Your task to perform on an android device: change the clock display to digital Image 0: 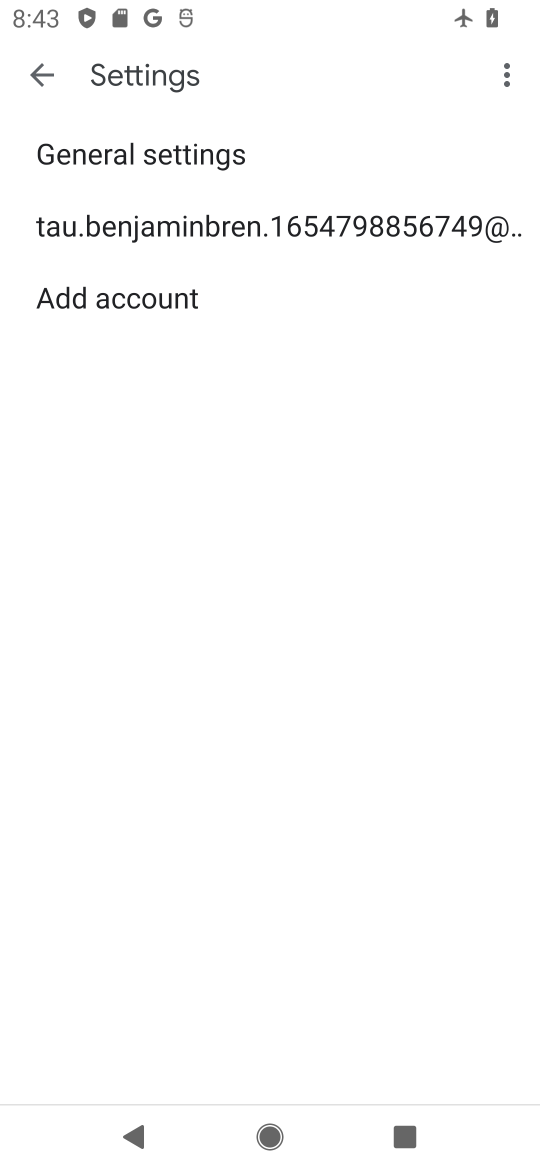
Step 0: press home button
Your task to perform on an android device: change the clock display to digital Image 1: 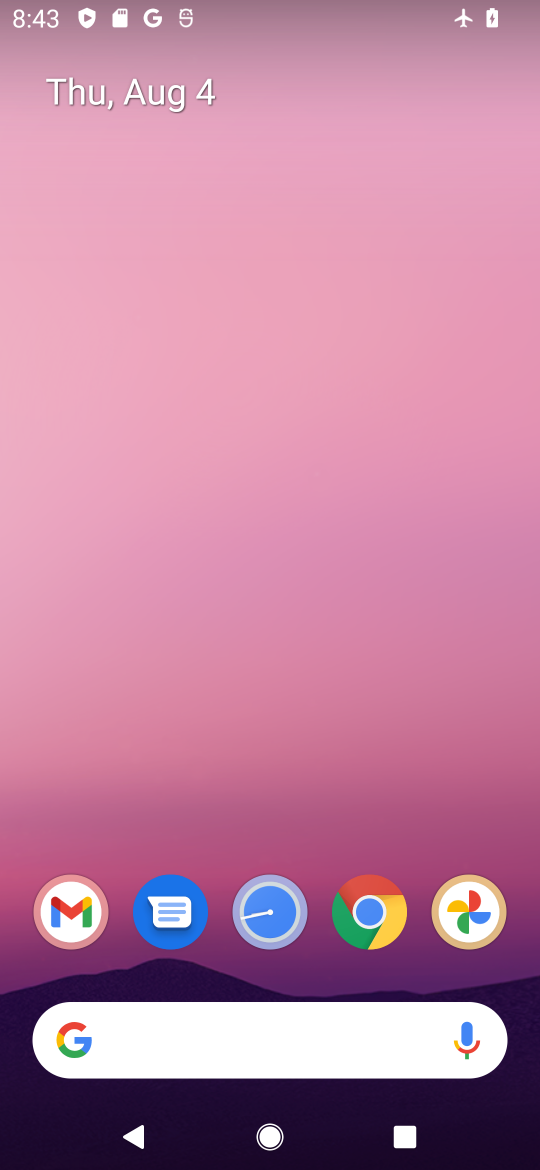
Step 1: click (261, 930)
Your task to perform on an android device: change the clock display to digital Image 2: 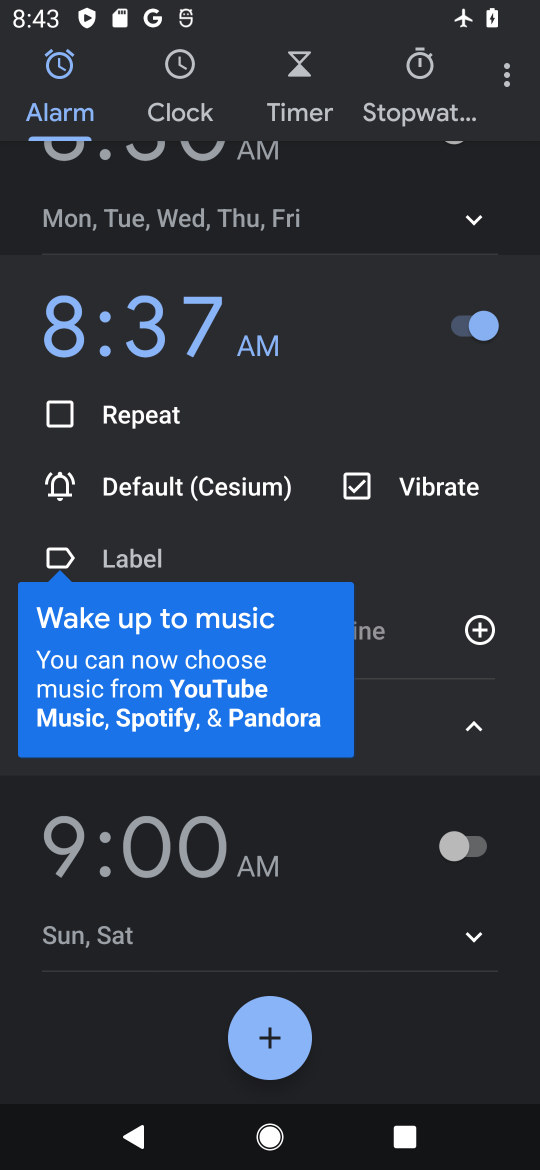
Step 2: click (496, 85)
Your task to perform on an android device: change the clock display to digital Image 3: 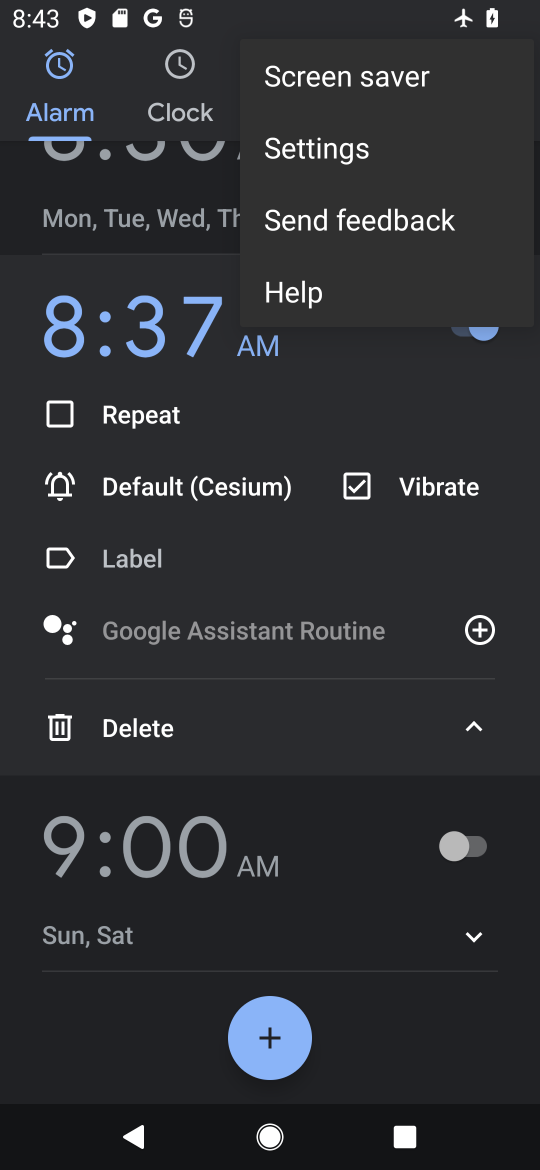
Step 3: click (364, 146)
Your task to perform on an android device: change the clock display to digital Image 4: 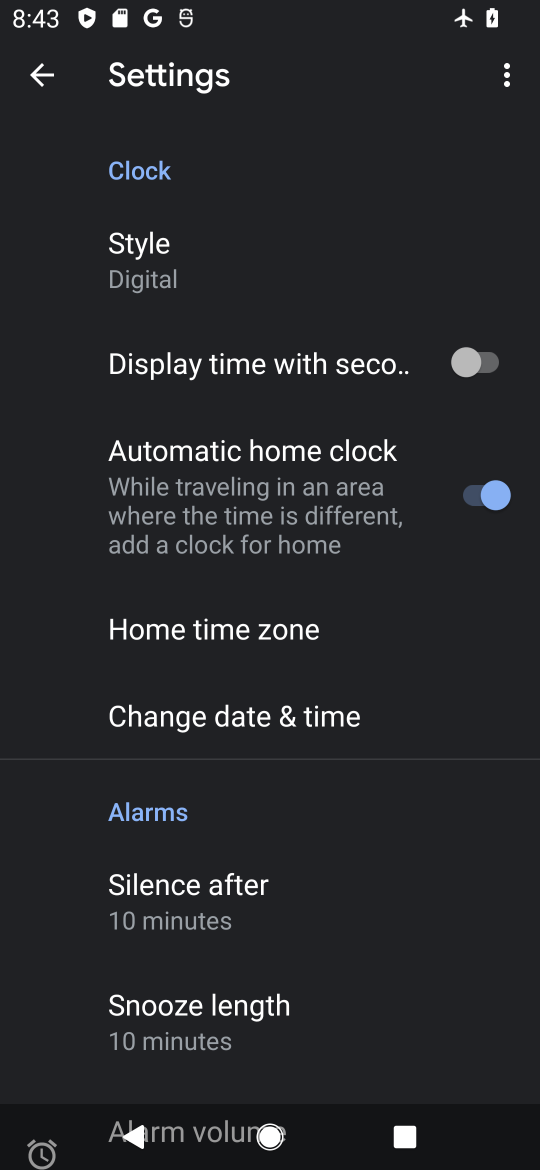
Step 4: click (338, 277)
Your task to perform on an android device: change the clock display to digital Image 5: 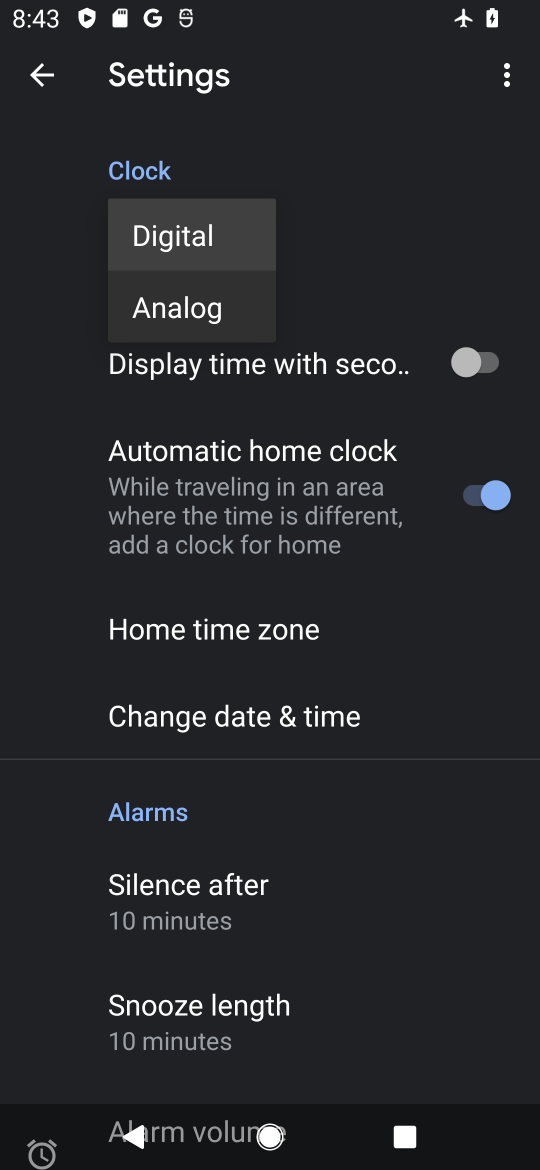
Step 5: task complete